Your task to perform on an android device: turn off location Image 0: 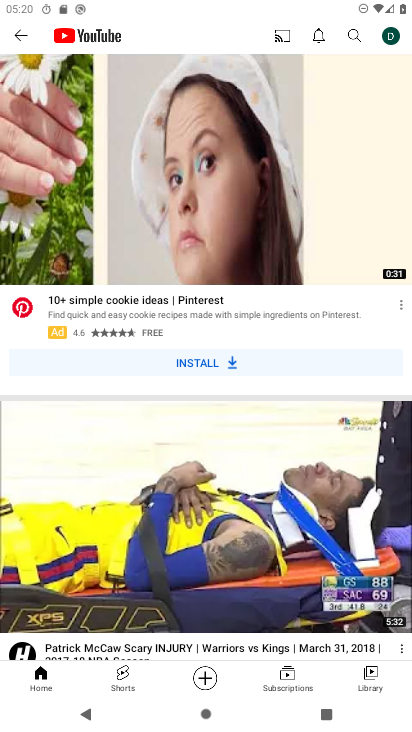
Step 0: press home button
Your task to perform on an android device: turn off location Image 1: 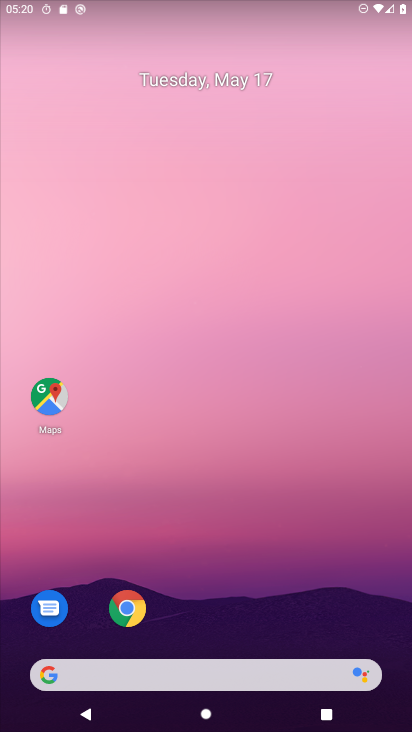
Step 1: click (255, 244)
Your task to perform on an android device: turn off location Image 2: 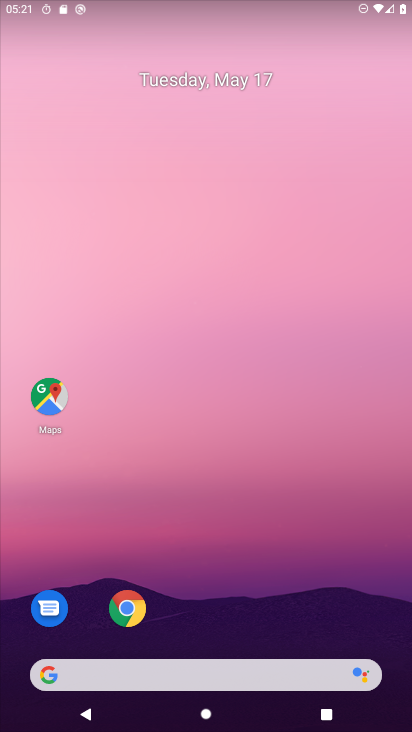
Step 2: drag from (199, 663) to (186, 182)
Your task to perform on an android device: turn off location Image 3: 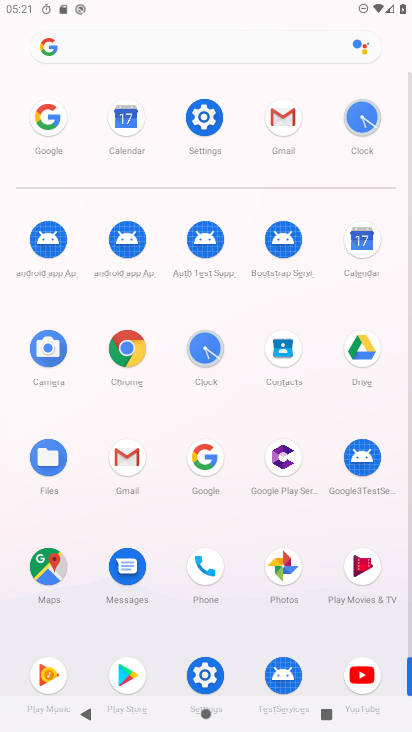
Step 3: click (203, 120)
Your task to perform on an android device: turn off location Image 4: 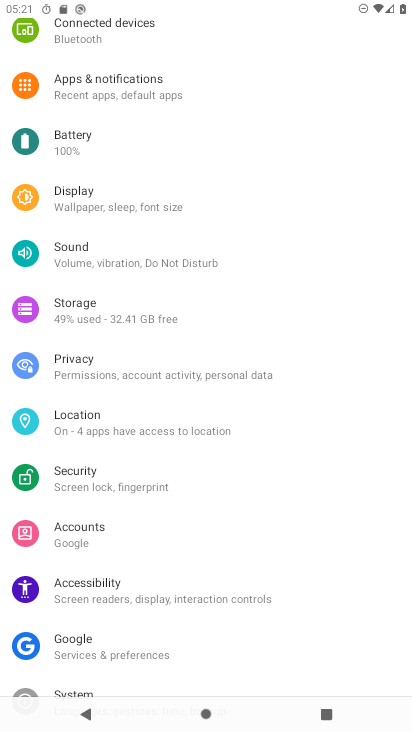
Step 4: click (83, 415)
Your task to perform on an android device: turn off location Image 5: 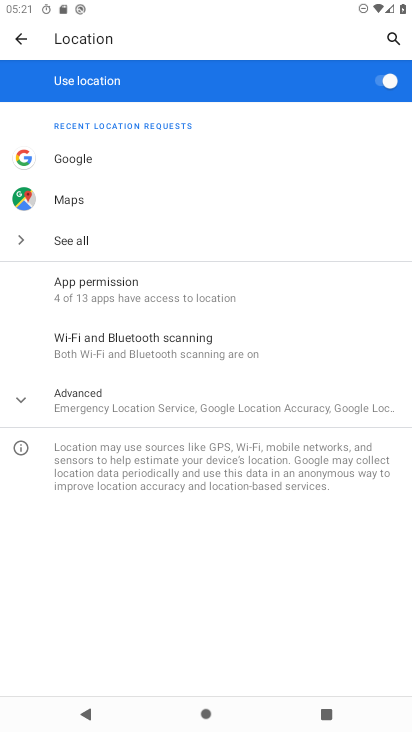
Step 5: click (88, 397)
Your task to perform on an android device: turn off location Image 6: 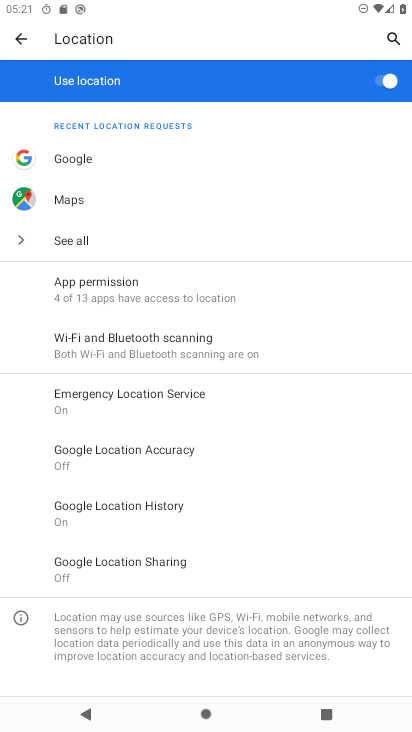
Step 6: click (379, 80)
Your task to perform on an android device: turn off location Image 7: 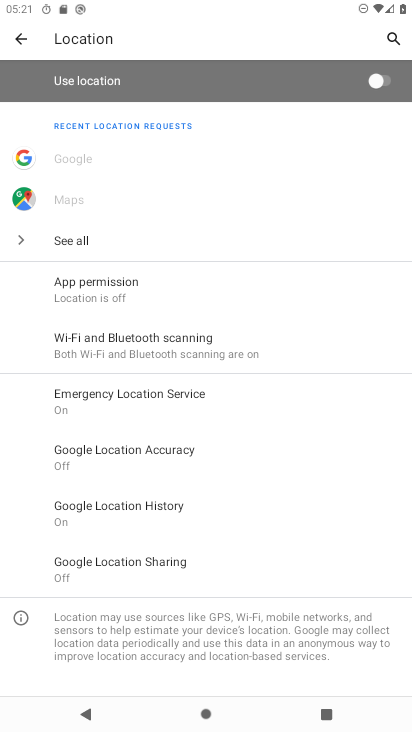
Step 7: task complete